Your task to perform on an android device: refresh tabs in the chrome app Image 0: 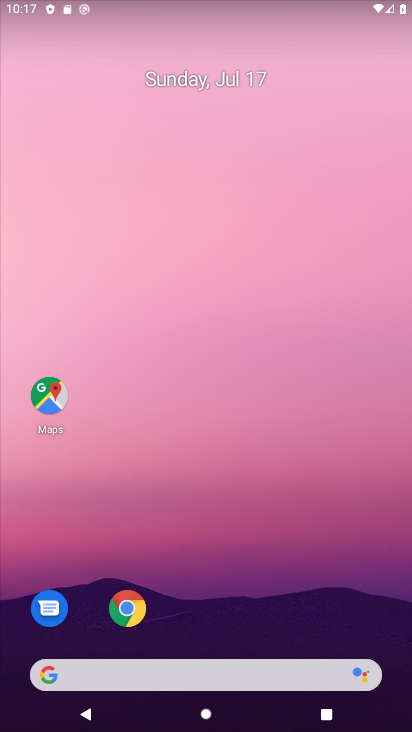
Step 0: click (130, 624)
Your task to perform on an android device: refresh tabs in the chrome app Image 1: 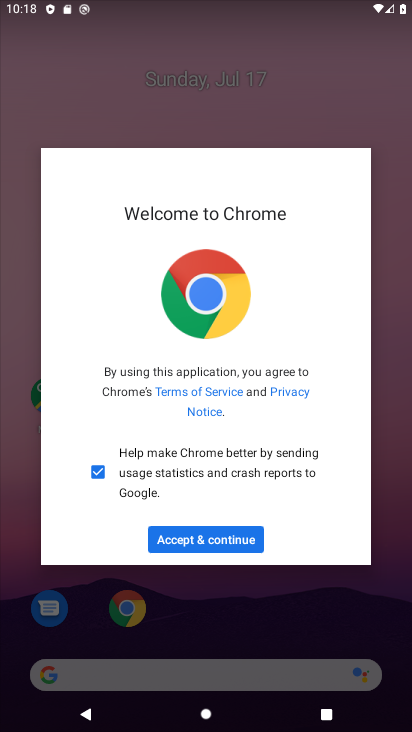
Step 1: click (174, 536)
Your task to perform on an android device: refresh tabs in the chrome app Image 2: 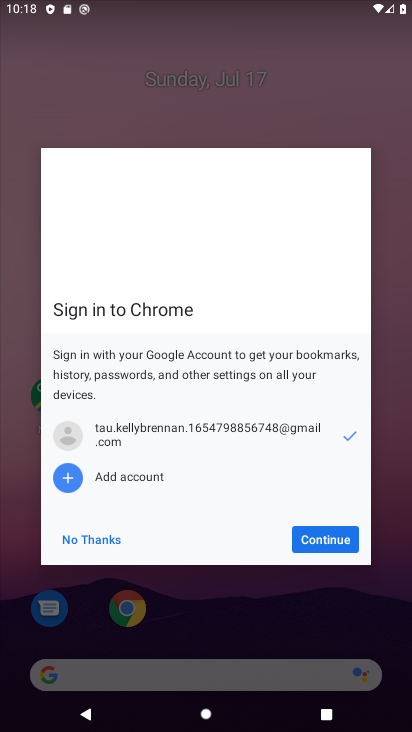
Step 2: click (316, 542)
Your task to perform on an android device: refresh tabs in the chrome app Image 3: 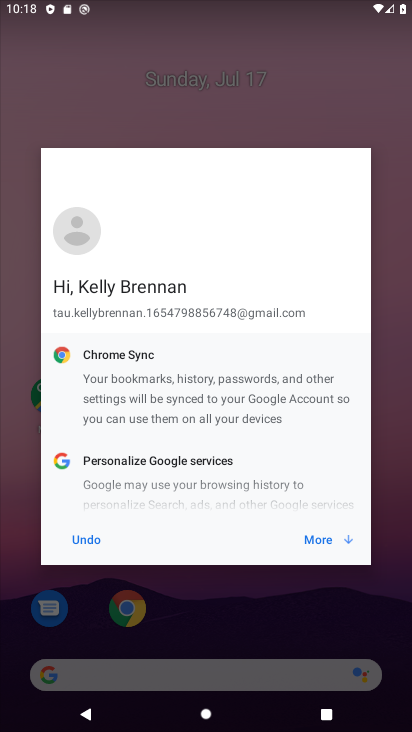
Step 3: click (316, 540)
Your task to perform on an android device: refresh tabs in the chrome app Image 4: 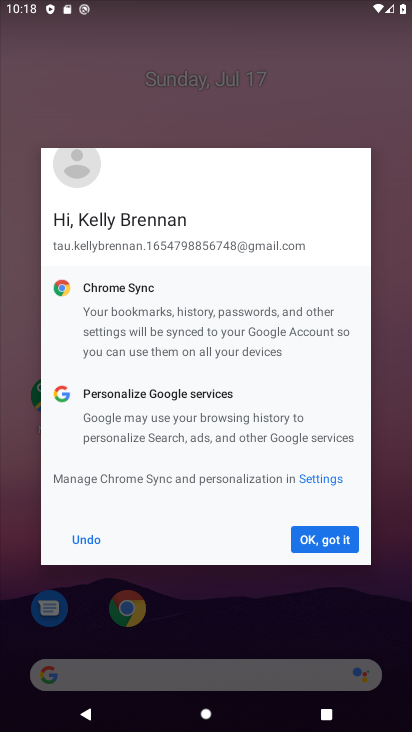
Step 4: click (322, 534)
Your task to perform on an android device: refresh tabs in the chrome app Image 5: 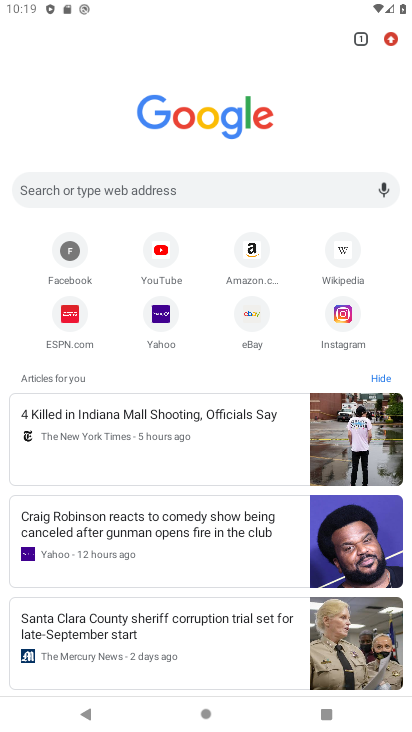
Step 5: press home button
Your task to perform on an android device: refresh tabs in the chrome app Image 6: 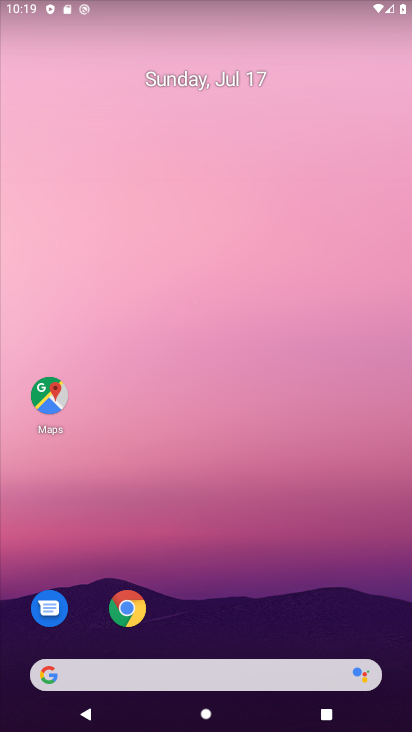
Step 6: click (124, 613)
Your task to perform on an android device: refresh tabs in the chrome app Image 7: 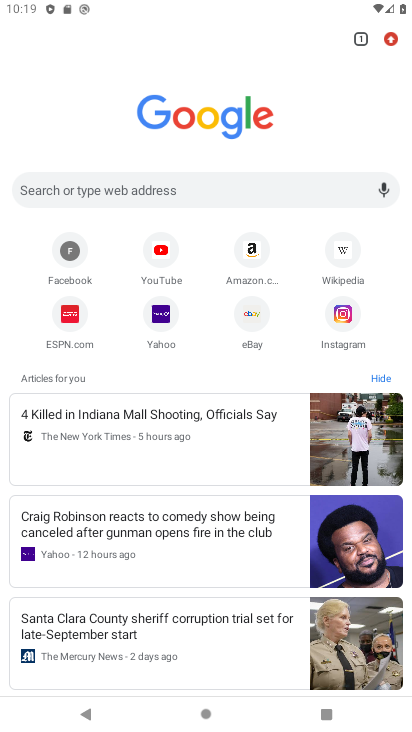
Step 7: click (129, 191)
Your task to perform on an android device: refresh tabs in the chrome app Image 8: 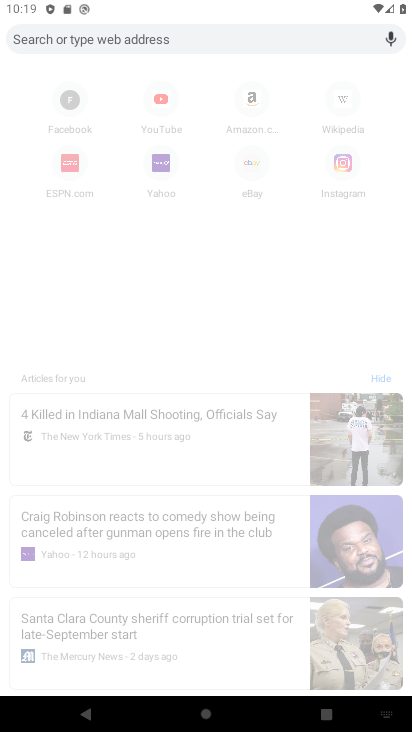
Step 8: click (127, 41)
Your task to perform on an android device: refresh tabs in the chrome app Image 9: 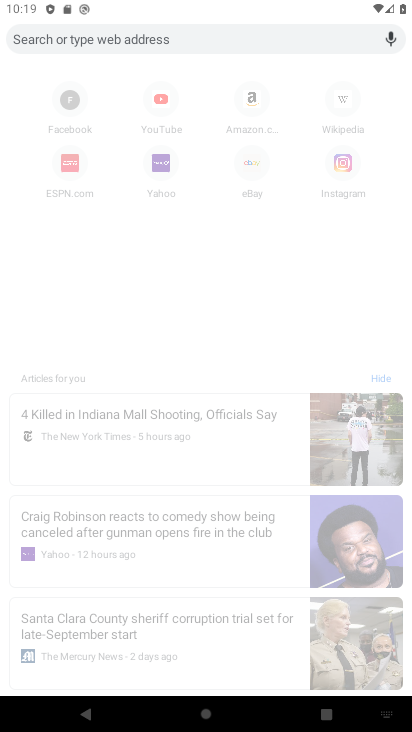
Step 9: click (126, 183)
Your task to perform on an android device: refresh tabs in the chrome app Image 10: 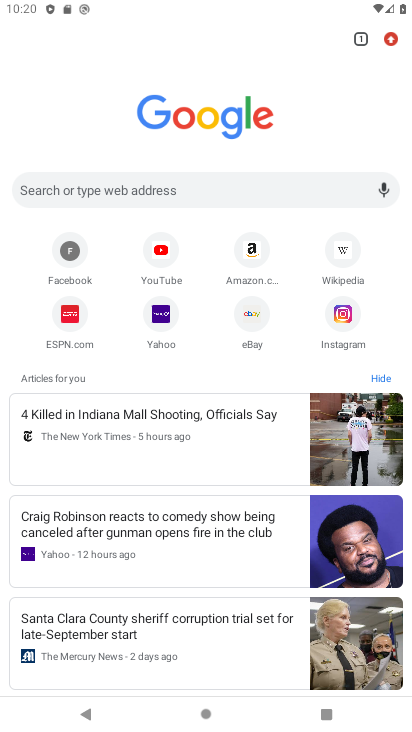
Step 10: click (392, 40)
Your task to perform on an android device: refresh tabs in the chrome app Image 11: 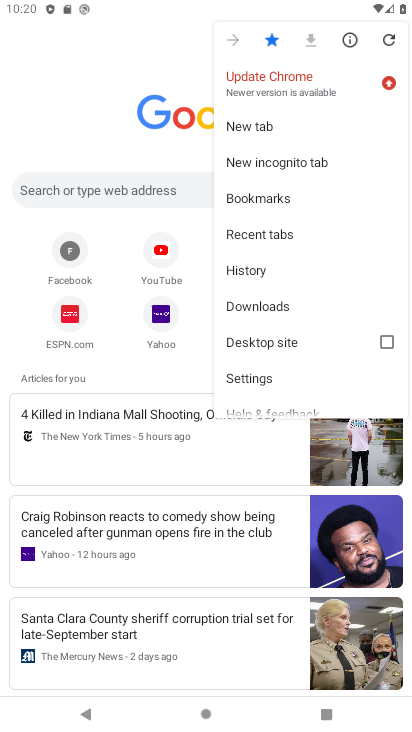
Step 11: click (391, 31)
Your task to perform on an android device: refresh tabs in the chrome app Image 12: 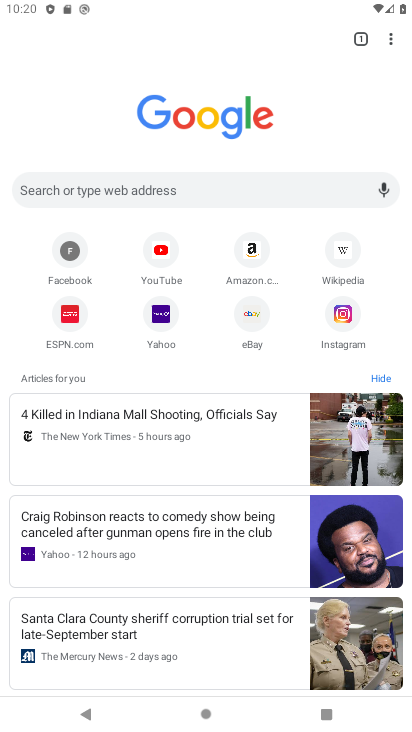
Step 12: task complete